Your task to perform on an android device: change the clock style Image 0: 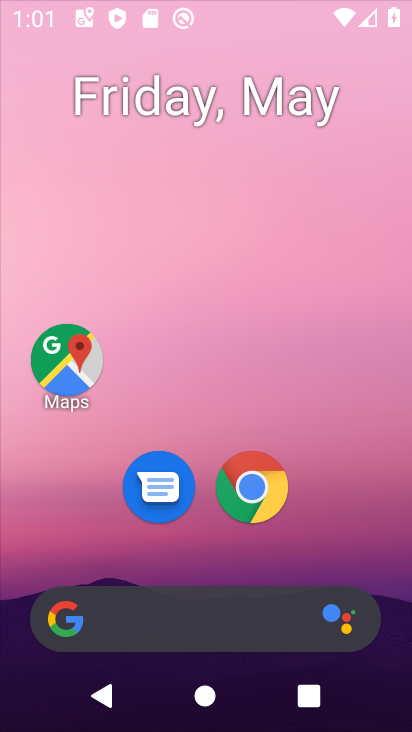
Step 0: click (207, 0)
Your task to perform on an android device: change the clock style Image 1: 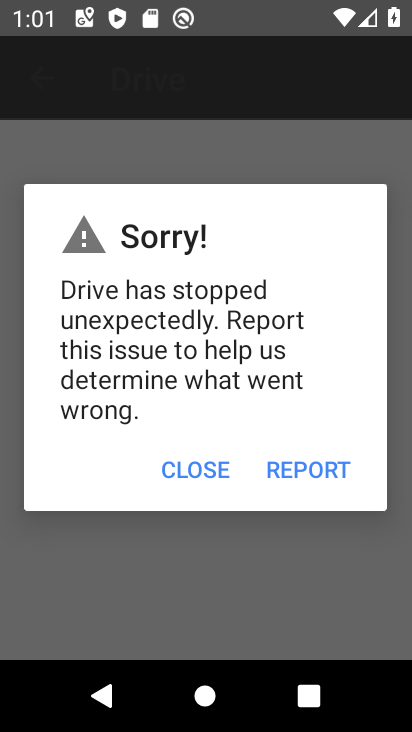
Step 1: press home button
Your task to perform on an android device: change the clock style Image 2: 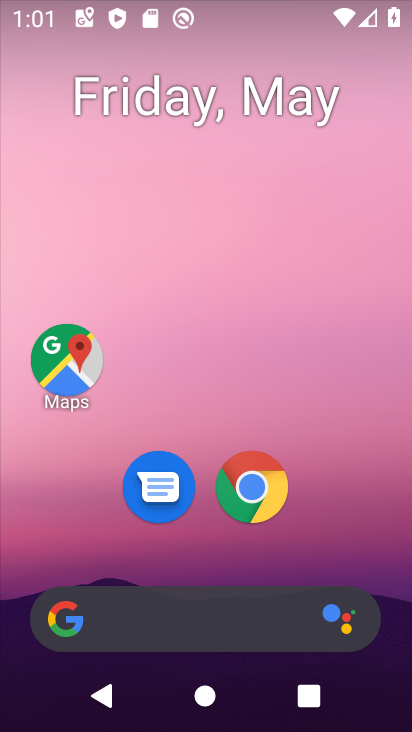
Step 2: drag from (215, 550) to (197, 20)
Your task to perform on an android device: change the clock style Image 3: 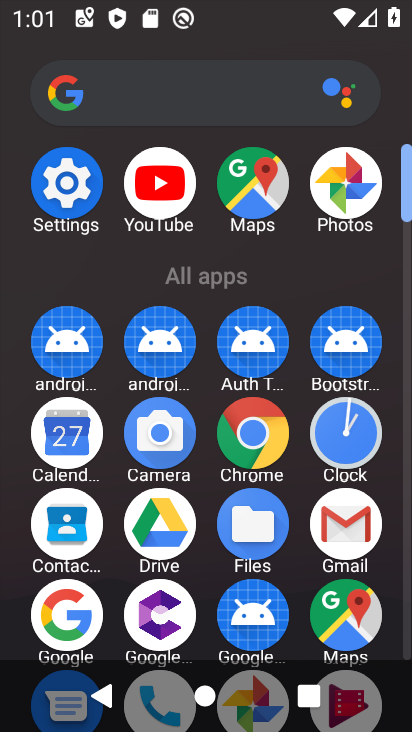
Step 3: click (347, 422)
Your task to perform on an android device: change the clock style Image 4: 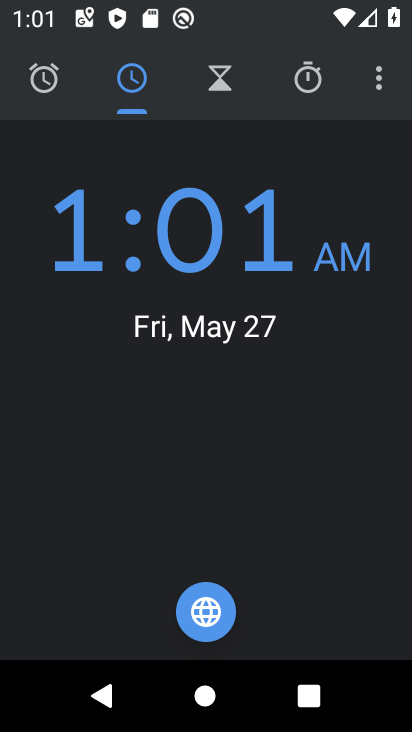
Step 4: click (387, 67)
Your task to perform on an android device: change the clock style Image 5: 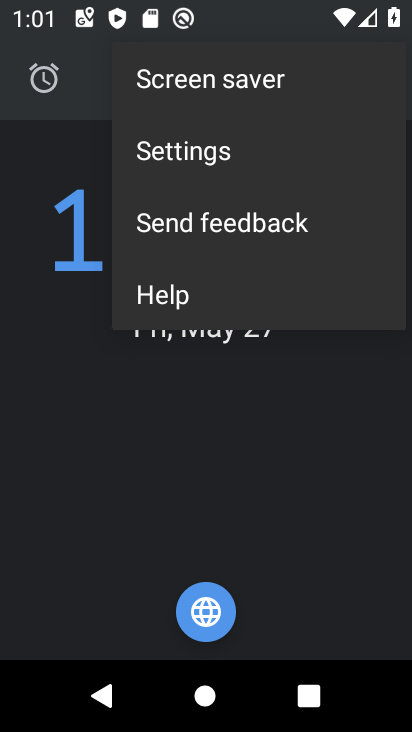
Step 5: click (226, 169)
Your task to perform on an android device: change the clock style Image 6: 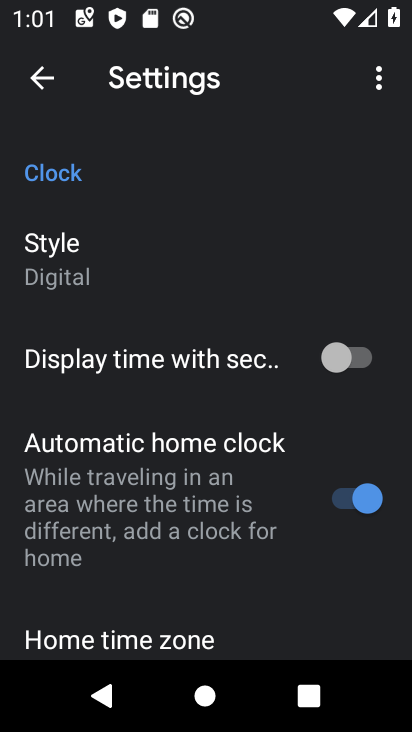
Step 6: click (77, 280)
Your task to perform on an android device: change the clock style Image 7: 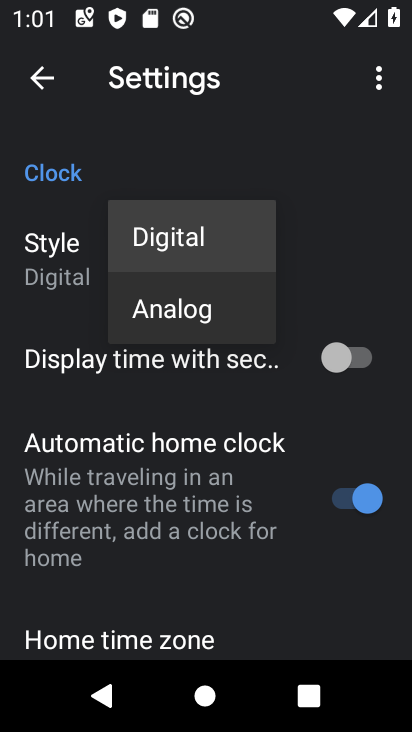
Step 7: click (163, 325)
Your task to perform on an android device: change the clock style Image 8: 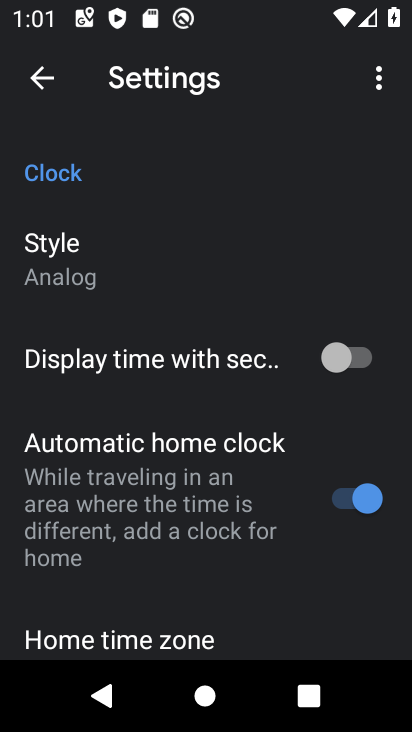
Step 8: task complete